Your task to perform on an android device: Open display settings Image 0: 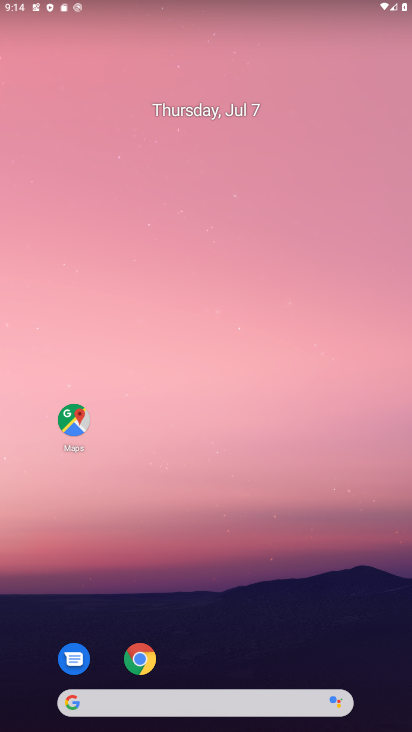
Step 0: drag from (221, 656) to (245, 40)
Your task to perform on an android device: Open display settings Image 1: 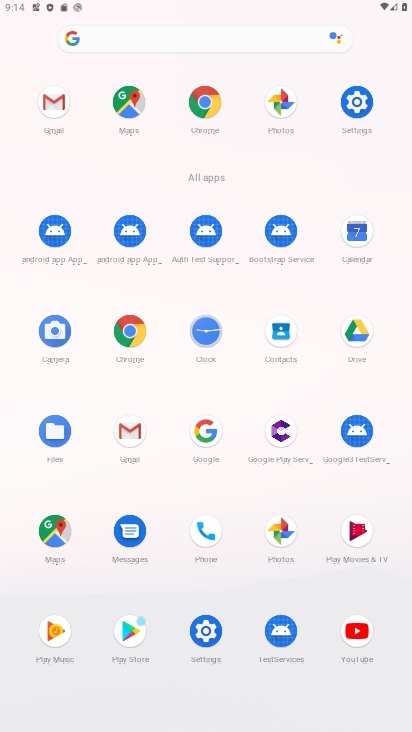
Step 1: click (211, 641)
Your task to perform on an android device: Open display settings Image 2: 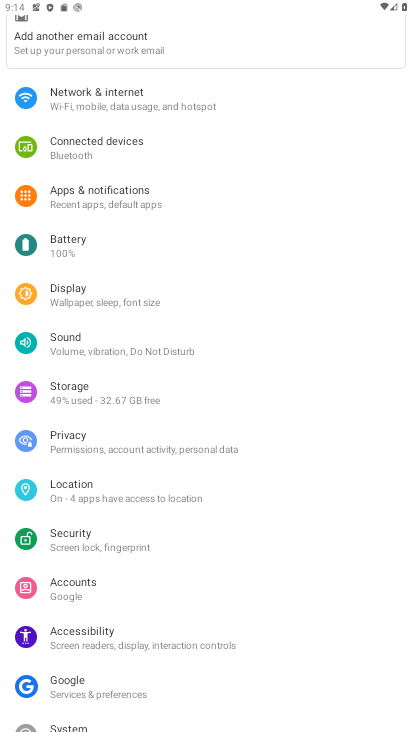
Step 2: click (110, 299)
Your task to perform on an android device: Open display settings Image 3: 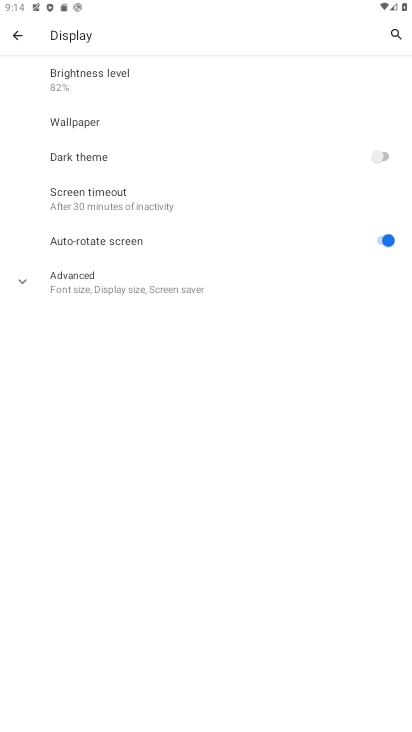
Step 3: task complete